Your task to perform on an android device: Open CNN.com Image 0: 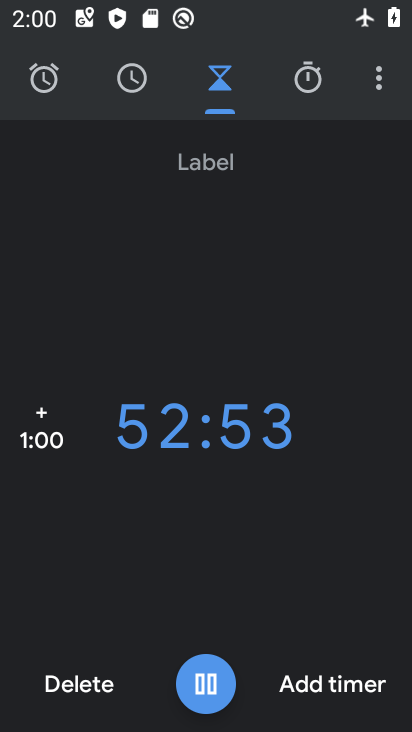
Step 0: press home button
Your task to perform on an android device: Open CNN.com Image 1: 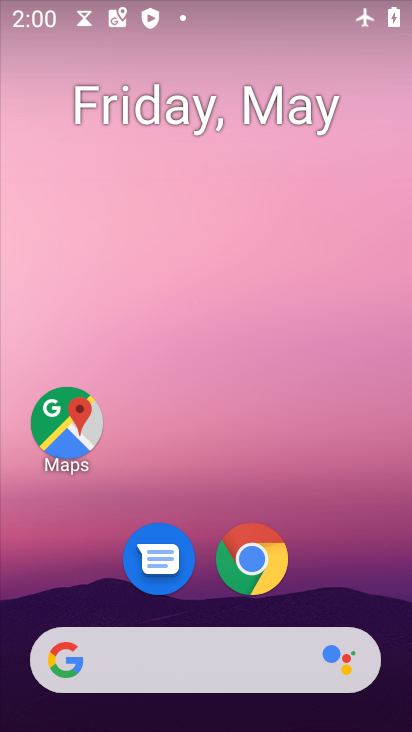
Step 1: click (280, 558)
Your task to perform on an android device: Open CNN.com Image 2: 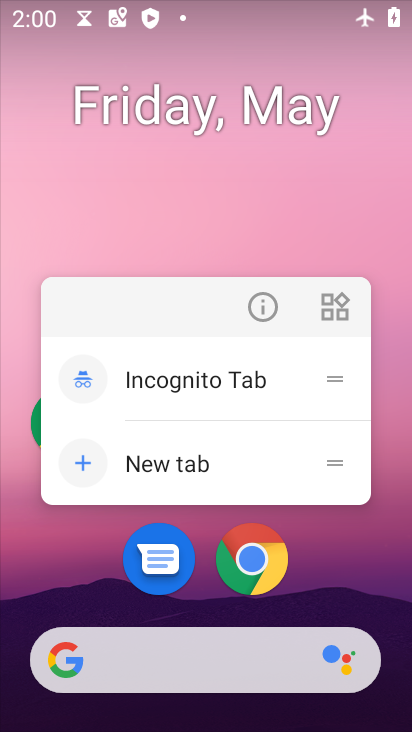
Step 2: click (256, 580)
Your task to perform on an android device: Open CNN.com Image 3: 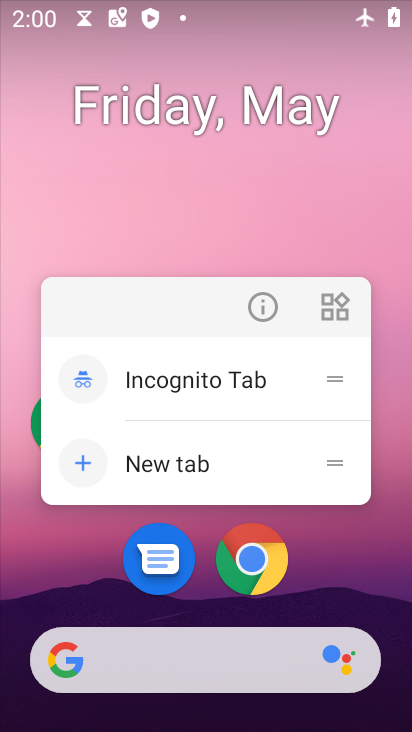
Step 3: click (256, 580)
Your task to perform on an android device: Open CNN.com Image 4: 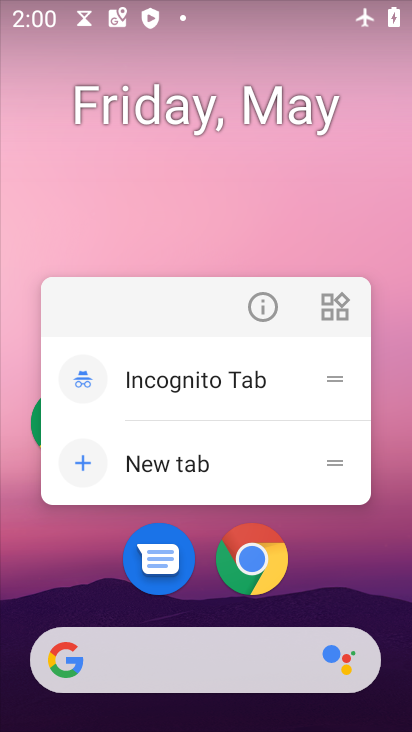
Step 4: click (254, 552)
Your task to perform on an android device: Open CNN.com Image 5: 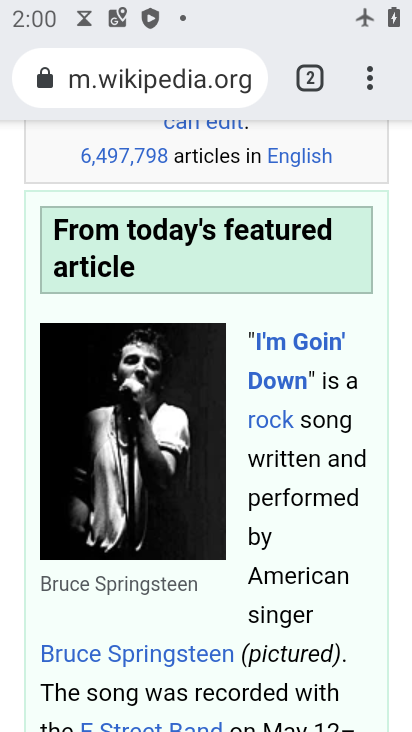
Step 5: click (180, 70)
Your task to perform on an android device: Open CNN.com Image 6: 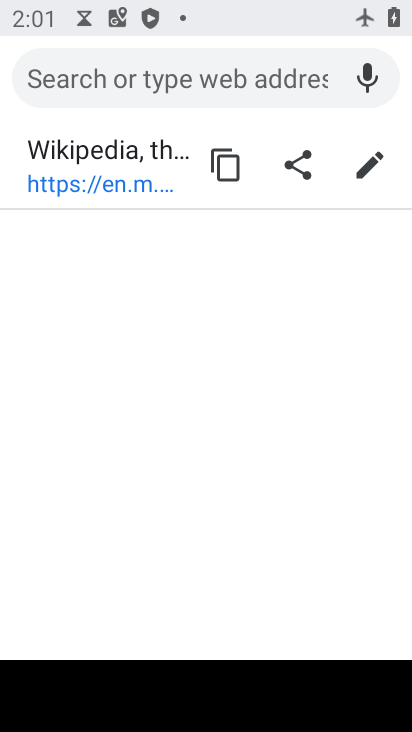
Step 6: type "CNN.com"
Your task to perform on an android device: Open CNN.com Image 7: 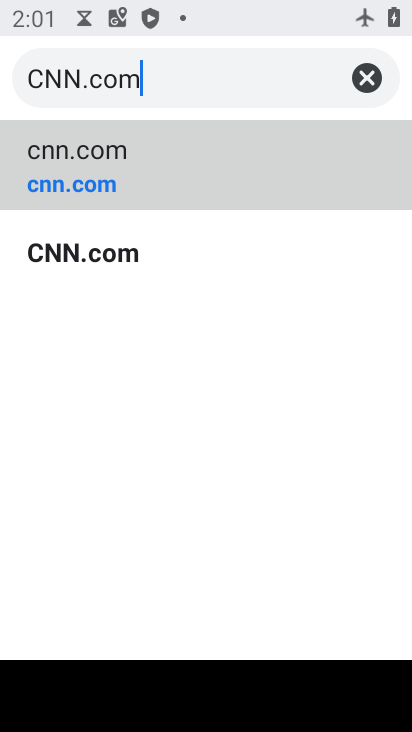
Step 7: click (150, 174)
Your task to perform on an android device: Open CNN.com Image 8: 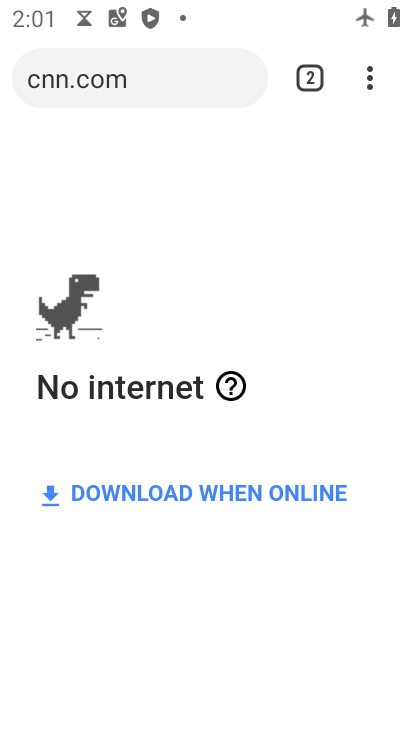
Step 8: task complete